Your task to perform on an android device: turn on notifications settings in the gmail app Image 0: 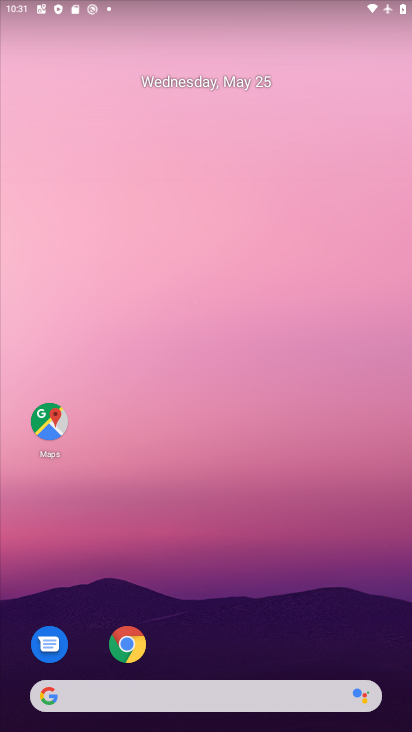
Step 0: drag from (222, 634) to (263, 154)
Your task to perform on an android device: turn on notifications settings in the gmail app Image 1: 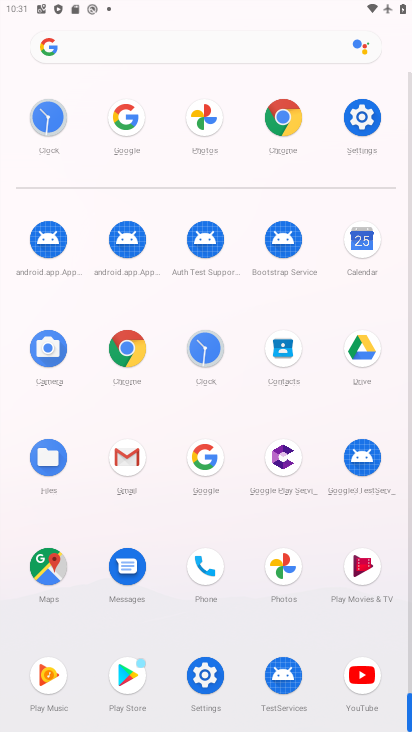
Step 1: click (124, 445)
Your task to perform on an android device: turn on notifications settings in the gmail app Image 2: 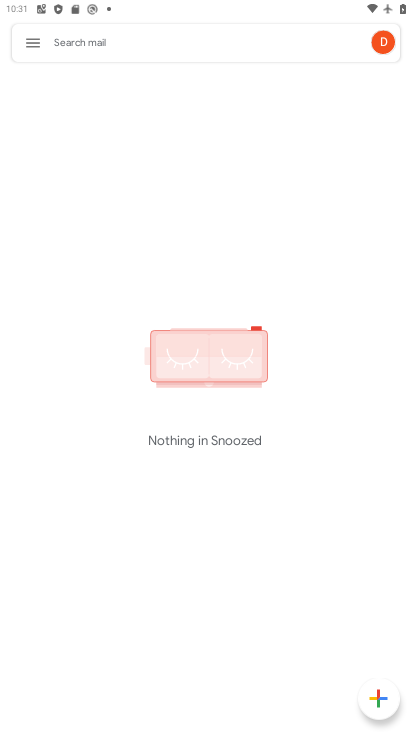
Step 2: click (30, 44)
Your task to perform on an android device: turn on notifications settings in the gmail app Image 3: 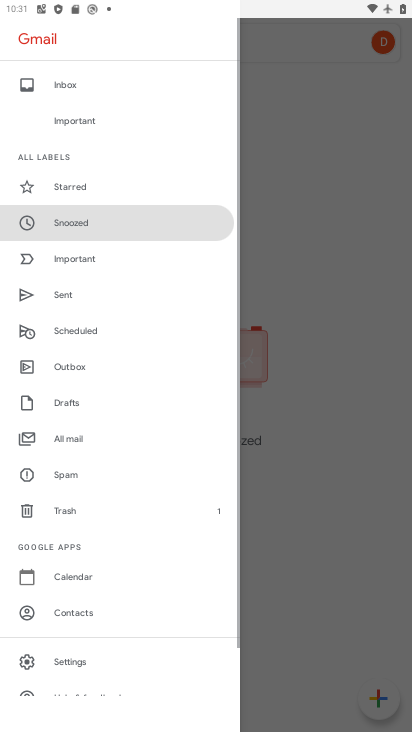
Step 3: drag from (71, 634) to (97, 462)
Your task to perform on an android device: turn on notifications settings in the gmail app Image 4: 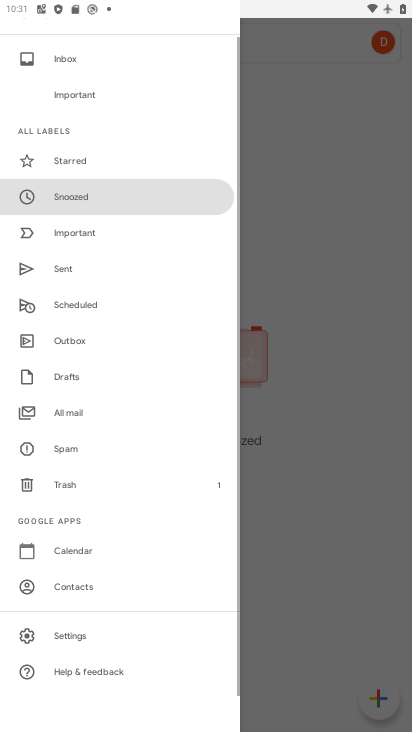
Step 4: click (88, 622)
Your task to perform on an android device: turn on notifications settings in the gmail app Image 5: 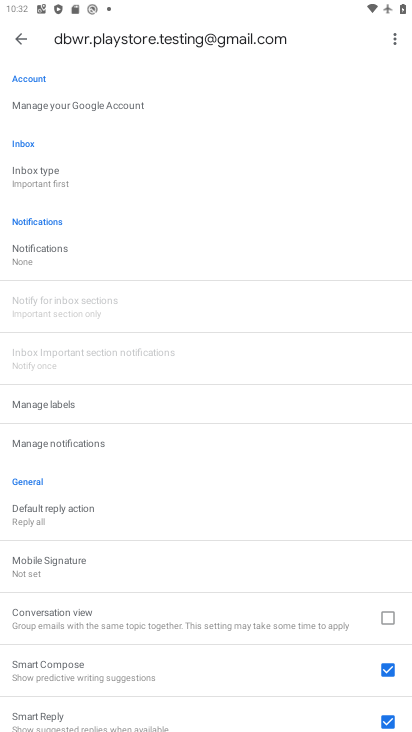
Step 5: click (46, 248)
Your task to perform on an android device: turn on notifications settings in the gmail app Image 6: 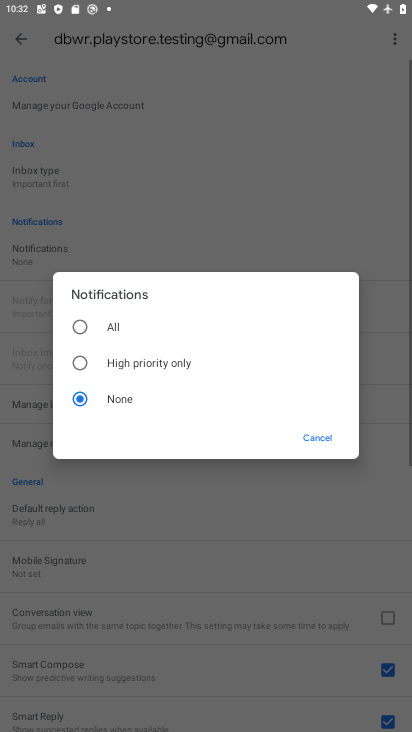
Step 6: click (94, 337)
Your task to perform on an android device: turn on notifications settings in the gmail app Image 7: 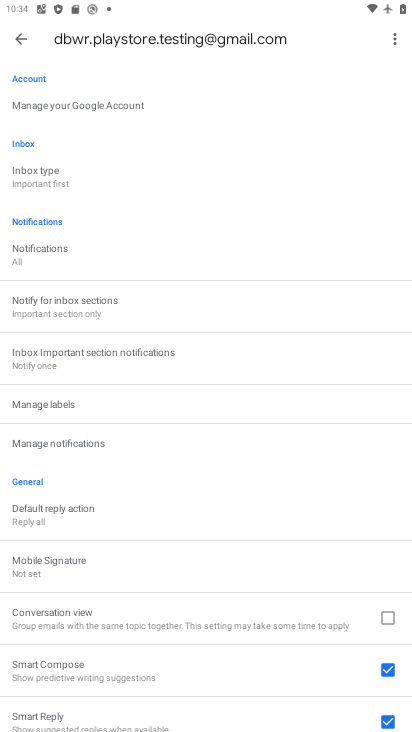
Step 7: task complete